Your task to perform on an android device: turn smart compose on in the gmail app Image 0: 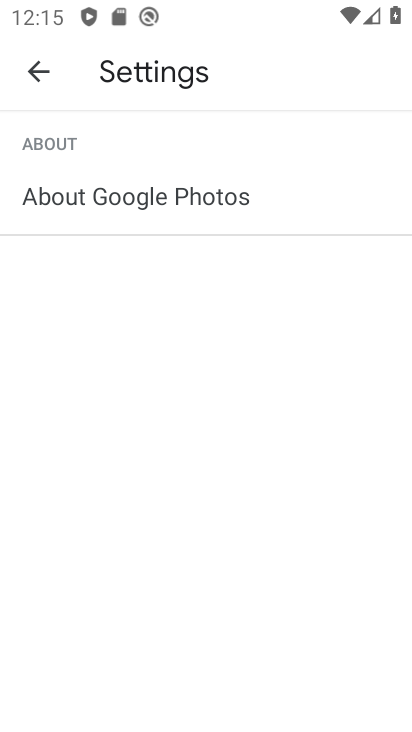
Step 0: press home button
Your task to perform on an android device: turn smart compose on in the gmail app Image 1: 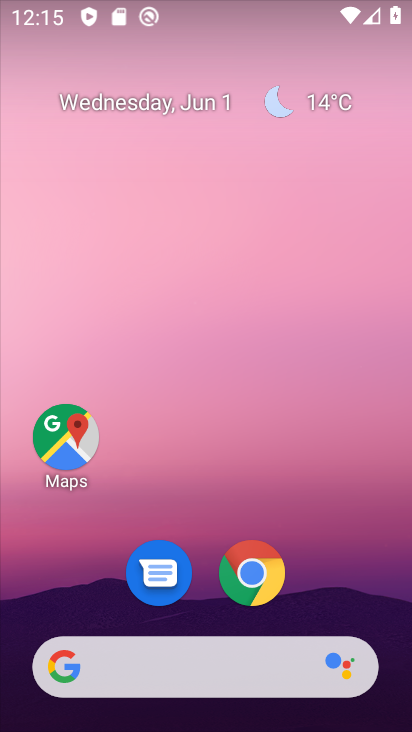
Step 1: drag from (102, 606) to (221, 34)
Your task to perform on an android device: turn smart compose on in the gmail app Image 2: 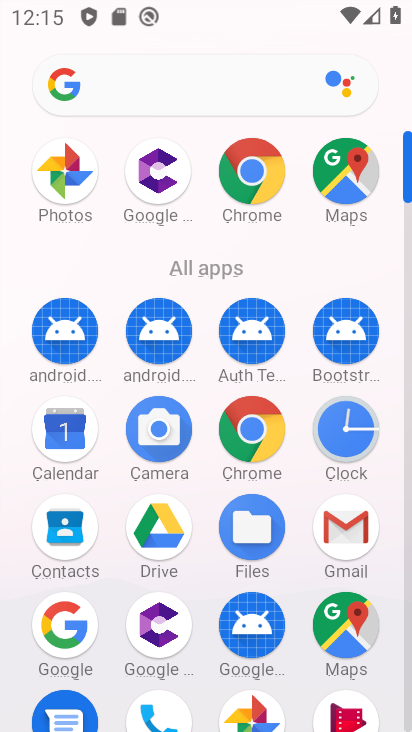
Step 2: click (329, 540)
Your task to perform on an android device: turn smart compose on in the gmail app Image 3: 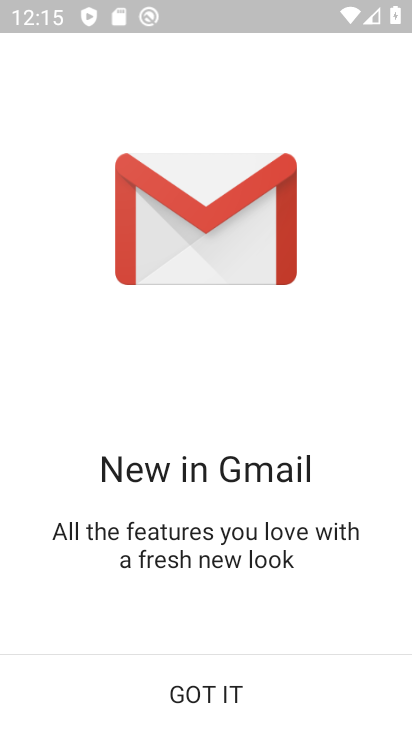
Step 3: click (205, 689)
Your task to perform on an android device: turn smart compose on in the gmail app Image 4: 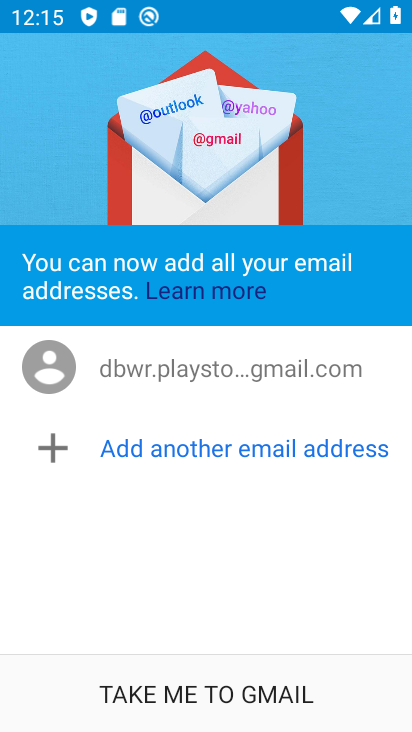
Step 4: click (230, 696)
Your task to perform on an android device: turn smart compose on in the gmail app Image 5: 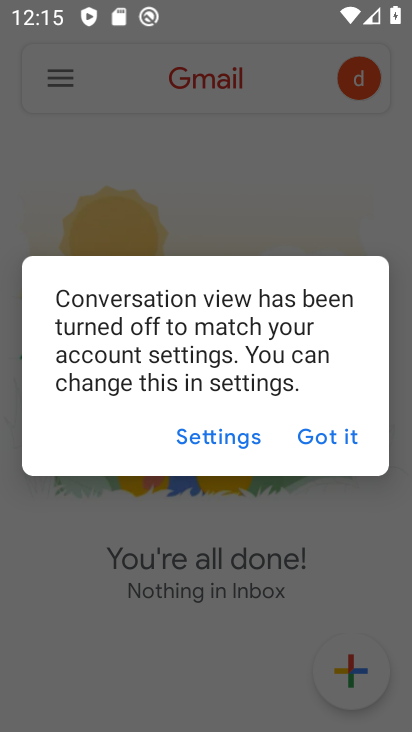
Step 5: click (326, 436)
Your task to perform on an android device: turn smart compose on in the gmail app Image 6: 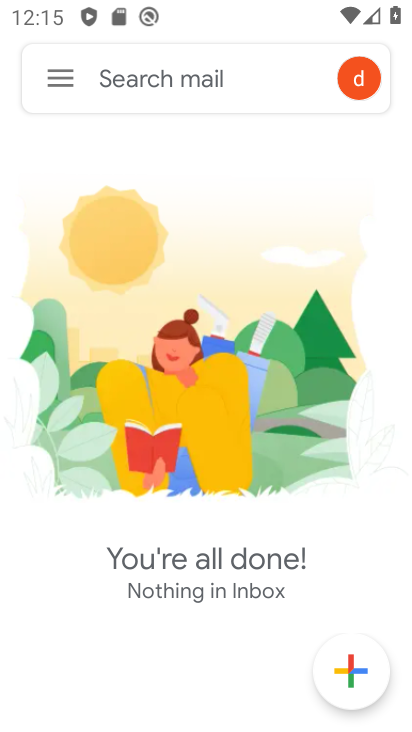
Step 6: click (71, 63)
Your task to perform on an android device: turn smart compose on in the gmail app Image 7: 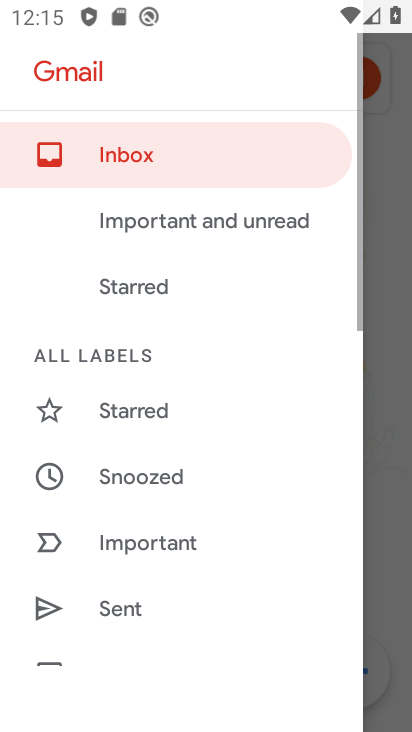
Step 7: drag from (126, 545) to (214, 144)
Your task to perform on an android device: turn smart compose on in the gmail app Image 8: 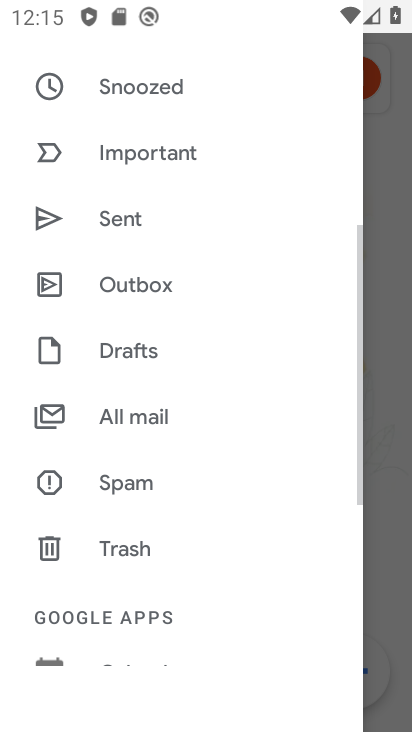
Step 8: drag from (130, 618) to (232, 183)
Your task to perform on an android device: turn smart compose on in the gmail app Image 9: 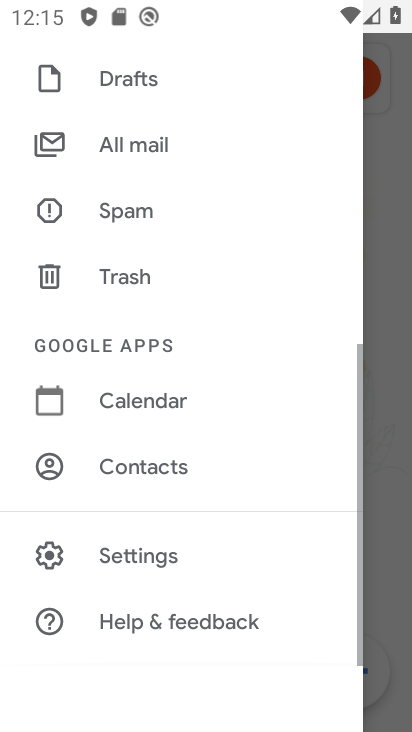
Step 9: click (126, 568)
Your task to perform on an android device: turn smart compose on in the gmail app Image 10: 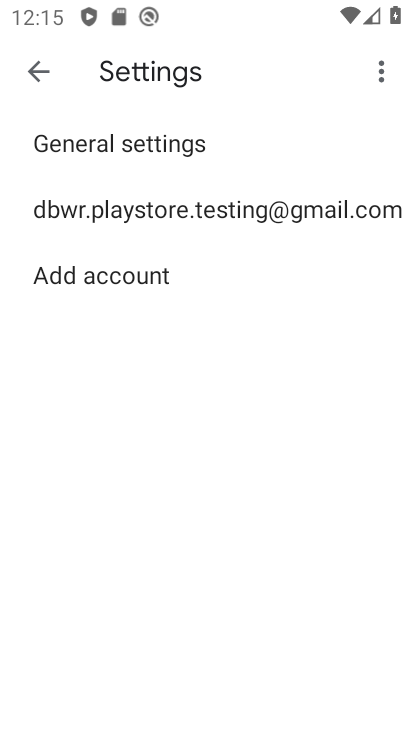
Step 10: click (259, 202)
Your task to perform on an android device: turn smart compose on in the gmail app Image 11: 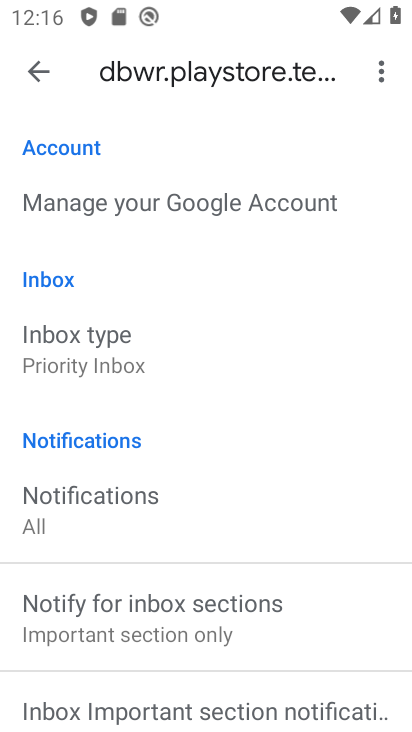
Step 11: task complete